Your task to perform on an android device: Turn off the flashlight Image 0: 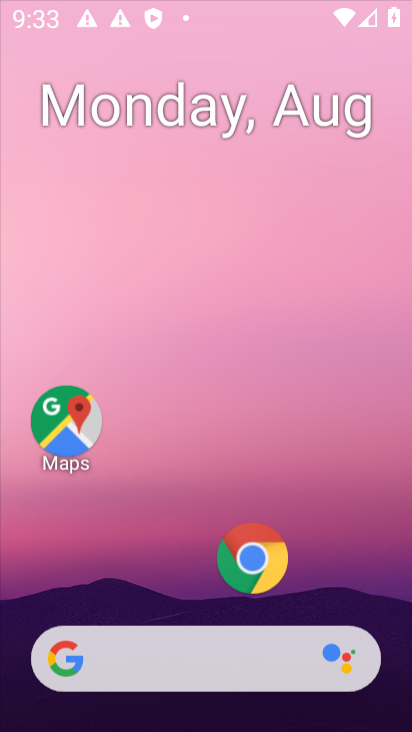
Step 0: press home button
Your task to perform on an android device: Turn off the flashlight Image 1: 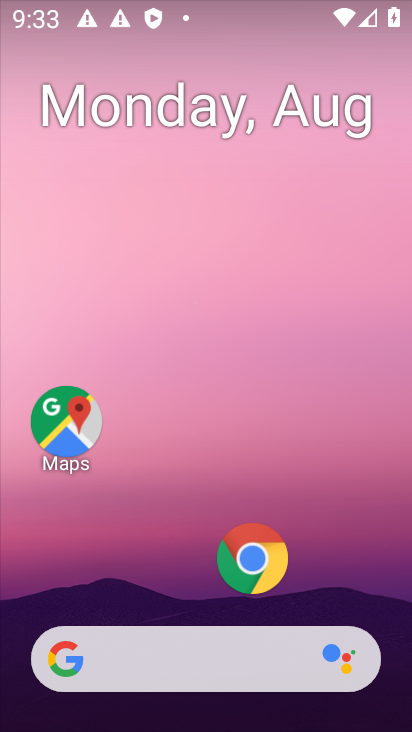
Step 1: drag from (180, 586) to (178, 100)
Your task to perform on an android device: Turn off the flashlight Image 2: 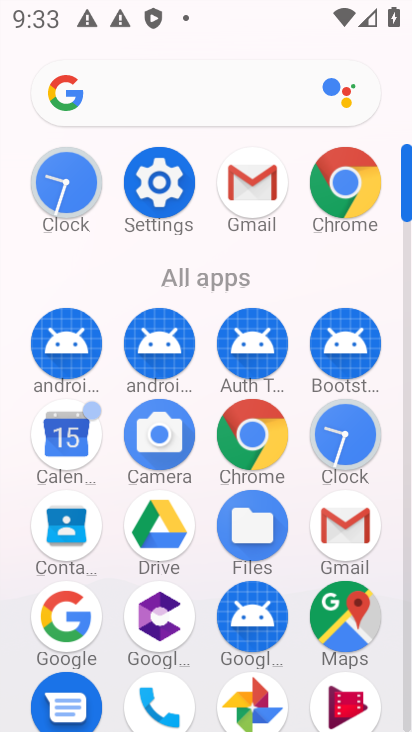
Step 2: click (158, 178)
Your task to perform on an android device: Turn off the flashlight Image 3: 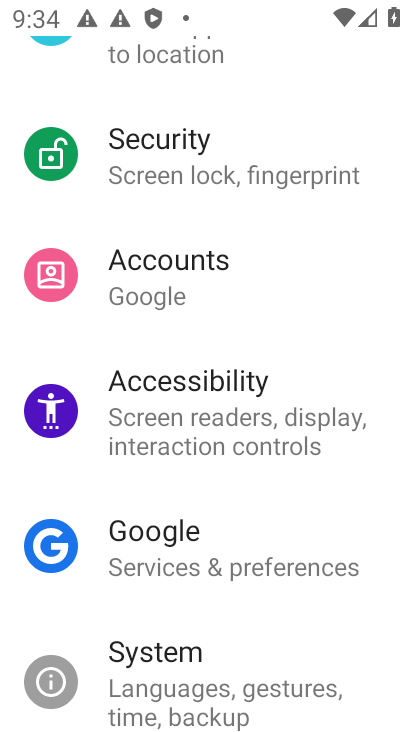
Step 3: drag from (125, 92) to (142, 466)
Your task to perform on an android device: Turn off the flashlight Image 4: 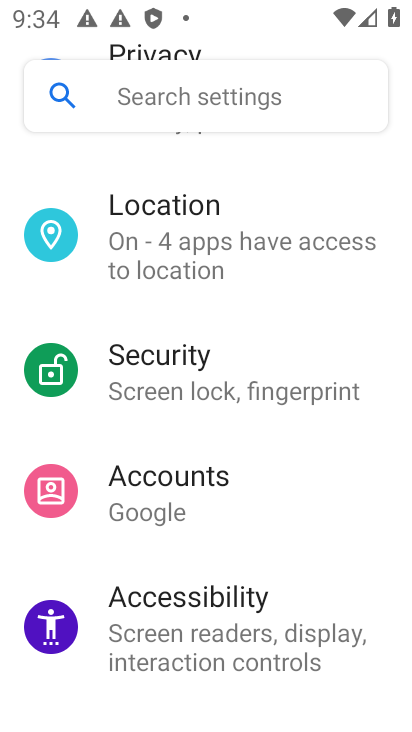
Step 4: click (151, 97)
Your task to perform on an android device: Turn off the flashlight Image 5: 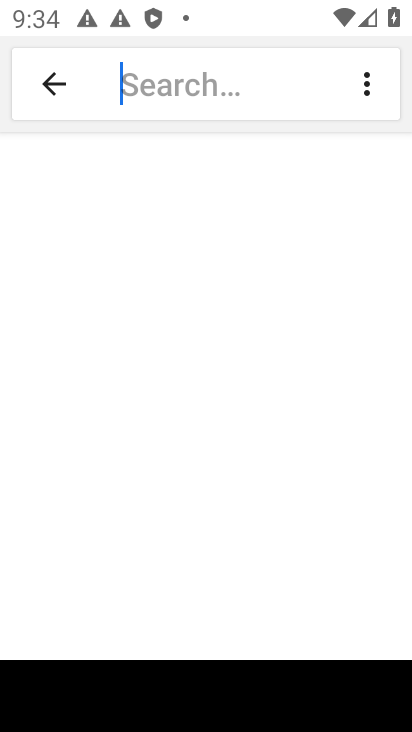
Step 5: type "flashlight"
Your task to perform on an android device: Turn off the flashlight Image 6: 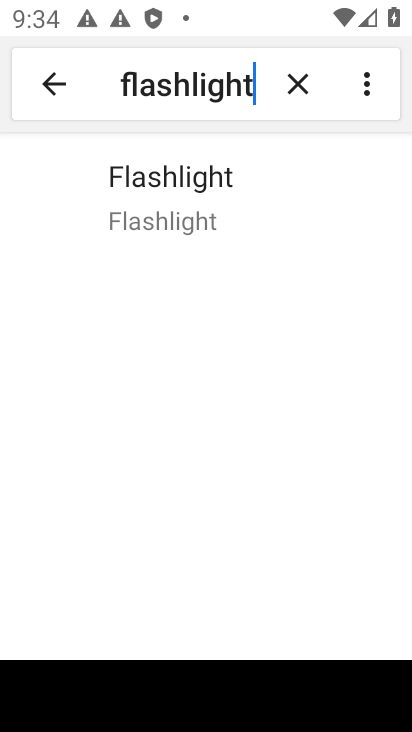
Step 6: click (157, 195)
Your task to perform on an android device: Turn off the flashlight Image 7: 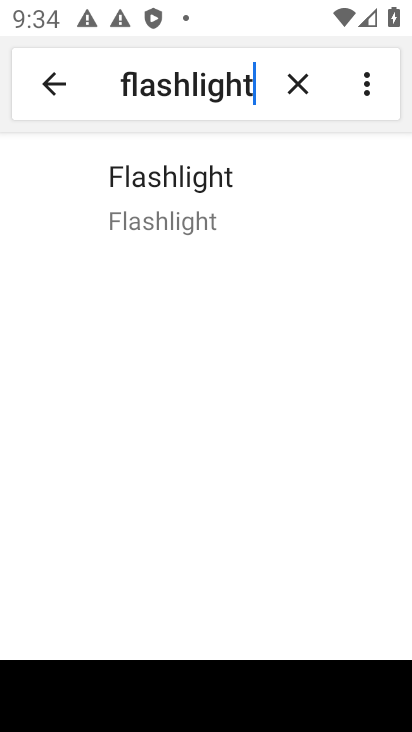
Step 7: click (157, 195)
Your task to perform on an android device: Turn off the flashlight Image 8: 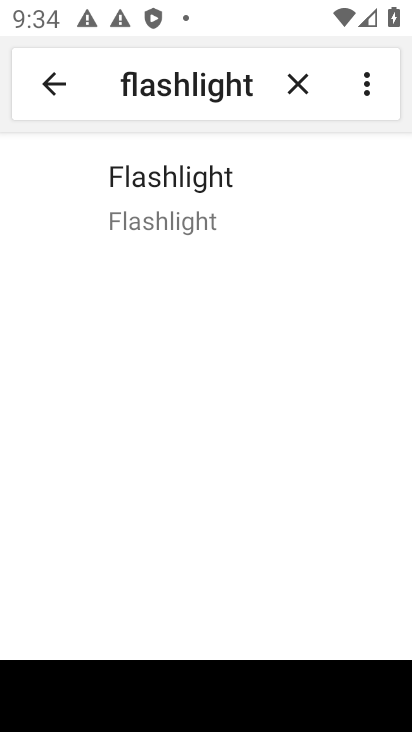
Step 8: task complete